Your task to perform on an android device: What is the recent news? Image 0: 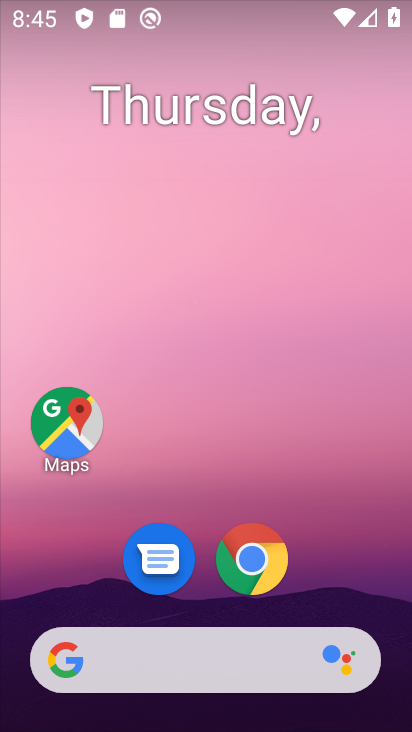
Step 0: drag from (0, 223) to (336, 214)
Your task to perform on an android device: What is the recent news? Image 1: 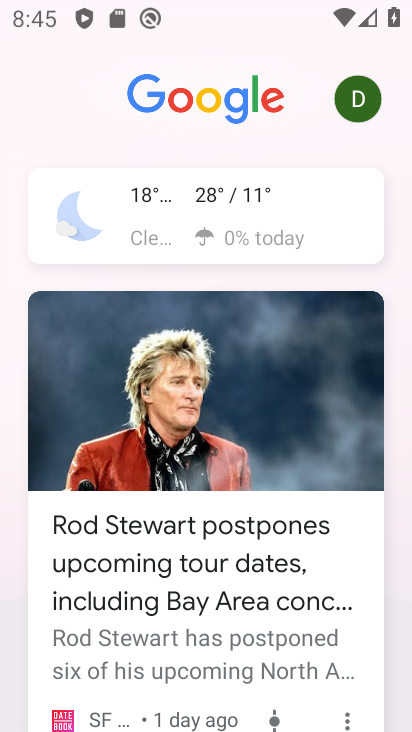
Step 1: task complete